Your task to perform on an android device: add a contact in the contacts app Image 0: 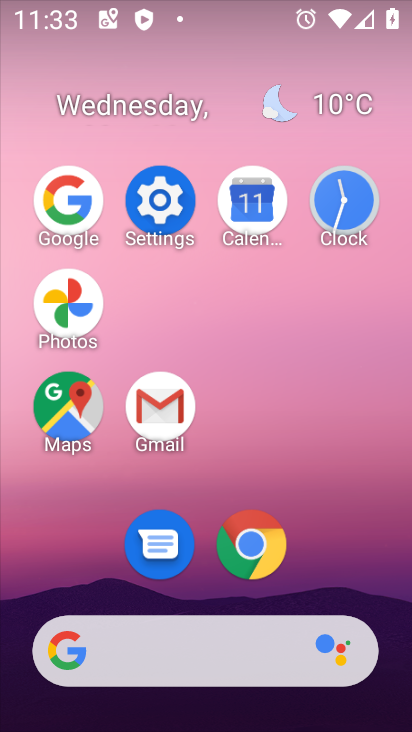
Step 0: drag from (317, 467) to (275, 201)
Your task to perform on an android device: add a contact in the contacts app Image 1: 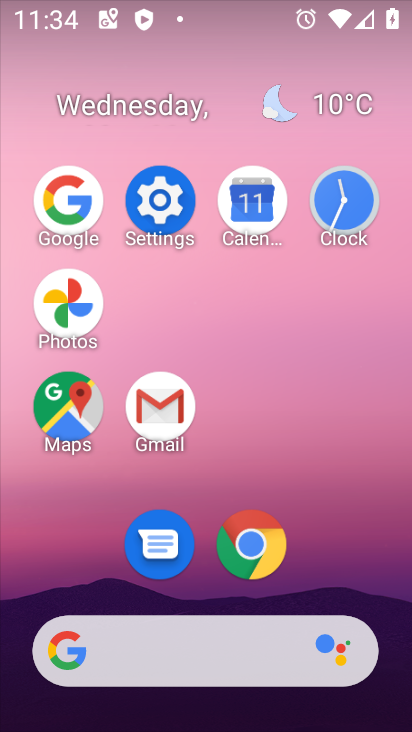
Step 1: drag from (316, 587) to (299, 162)
Your task to perform on an android device: add a contact in the contacts app Image 2: 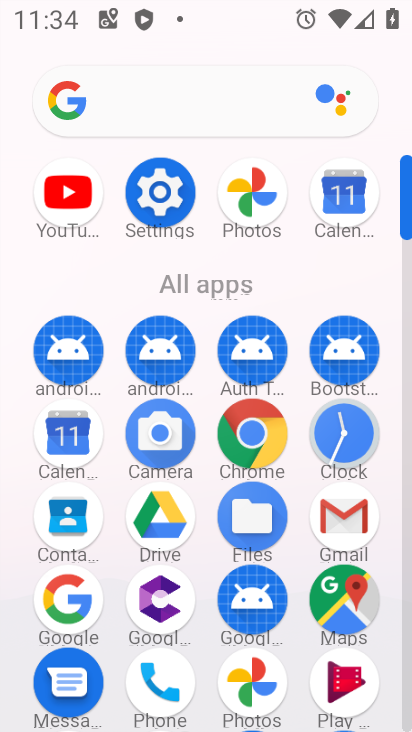
Step 2: drag from (58, 526) to (154, 311)
Your task to perform on an android device: add a contact in the contacts app Image 3: 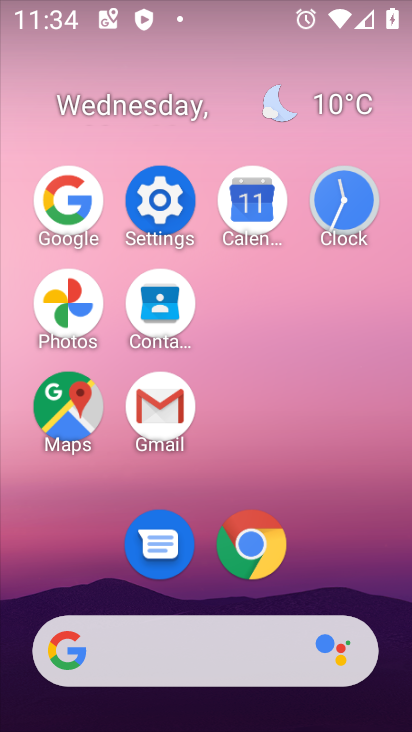
Step 3: click (166, 297)
Your task to perform on an android device: add a contact in the contacts app Image 4: 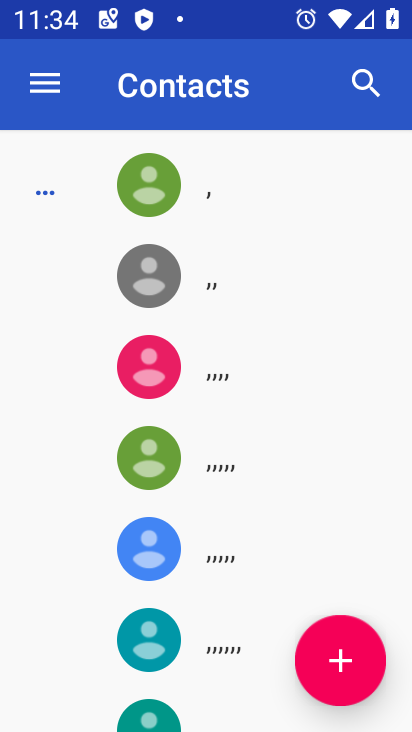
Step 4: click (357, 676)
Your task to perform on an android device: add a contact in the contacts app Image 5: 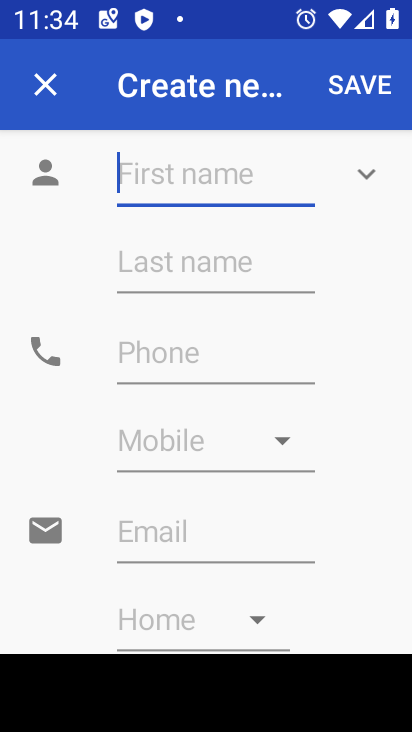
Step 5: type "abcd"
Your task to perform on an android device: add a contact in the contacts app Image 6: 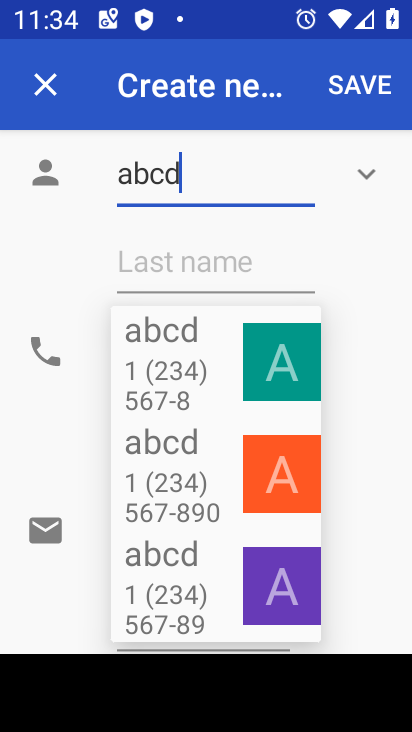
Step 6: click (146, 275)
Your task to perform on an android device: add a contact in the contacts app Image 7: 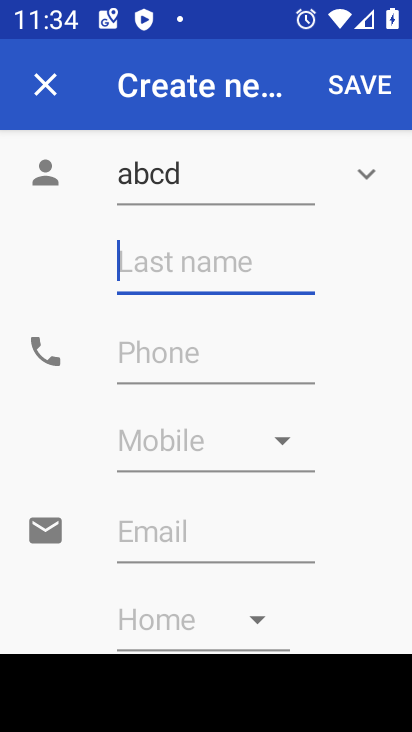
Step 7: type "efg"
Your task to perform on an android device: add a contact in the contacts app Image 8: 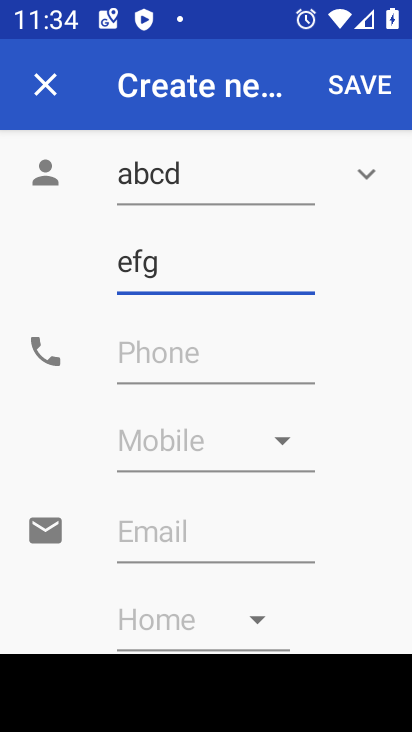
Step 8: click (155, 352)
Your task to perform on an android device: add a contact in the contacts app Image 9: 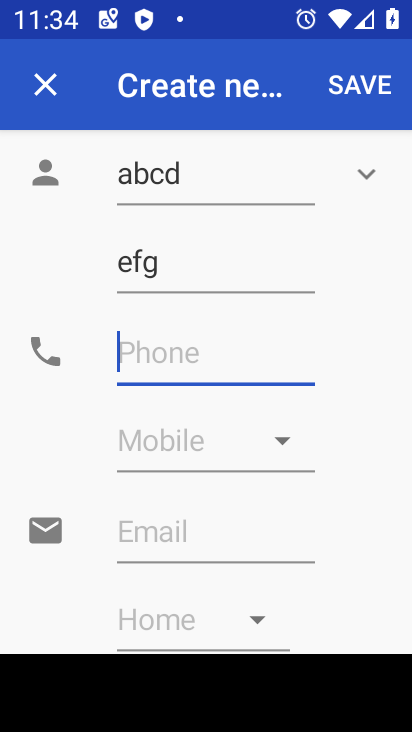
Step 9: type "9908765112"
Your task to perform on an android device: add a contact in the contacts app Image 10: 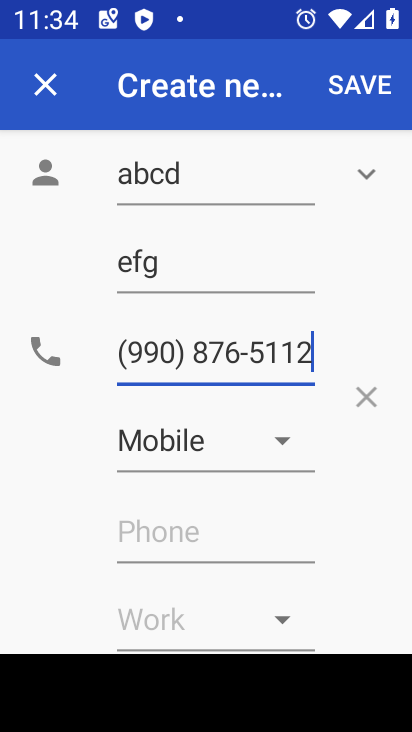
Step 10: click (361, 97)
Your task to perform on an android device: add a contact in the contacts app Image 11: 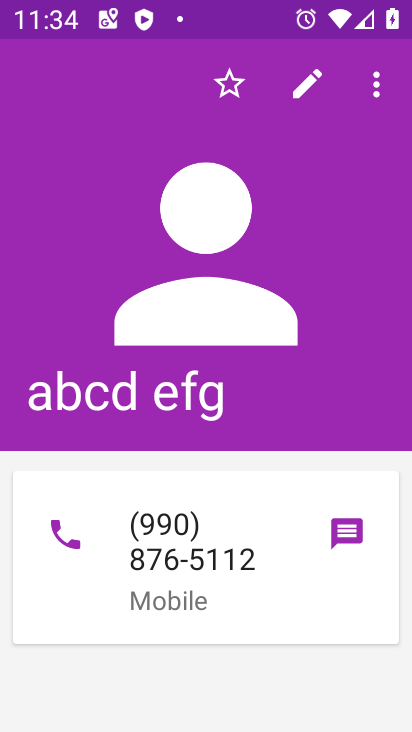
Step 11: task complete